Your task to perform on an android device: toggle show notifications on the lock screen Image 0: 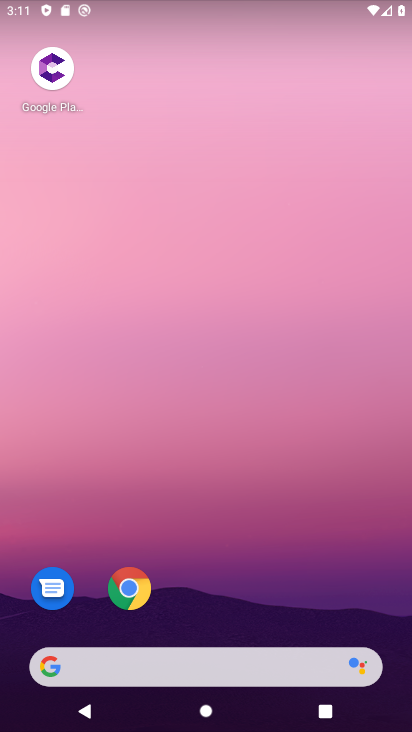
Step 0: drag from (222, 562) to (225, 84)
Your task to perform on an android device: toggle show notifications on the lock screen Image 1: 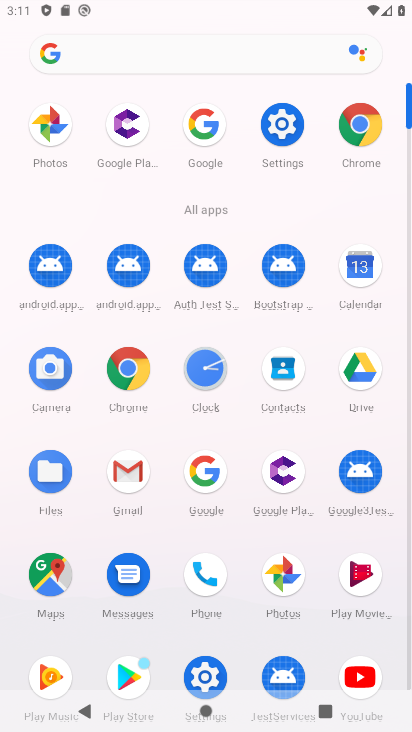
Step 1: click (281, 127)
Your task to perform on an android device: toggle show notifications on the lock screen Image 2: 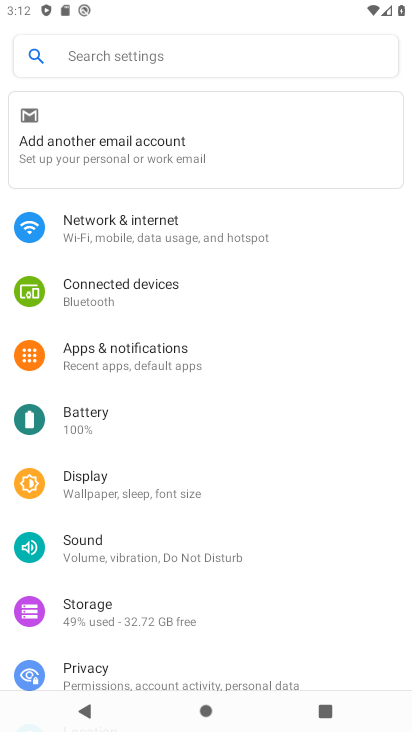
Step 2: click (131, 354)
Your task to perform on an android device: toggle show notifications on the lock screen Image 3: 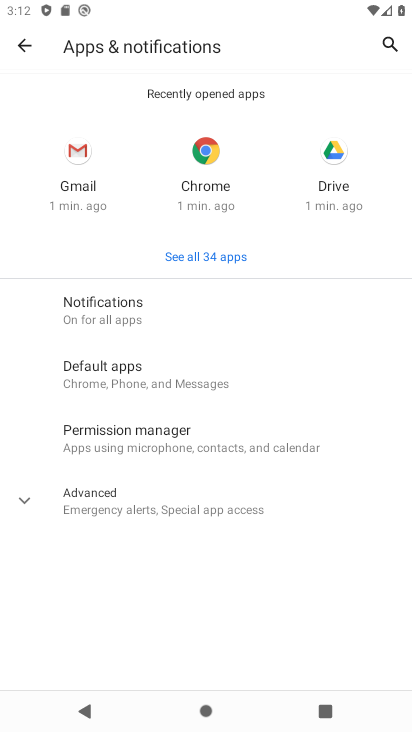
Step 3: click (78, 313)
Your task to perform on an android device: toggle show notifications on the lock screen Image 4: 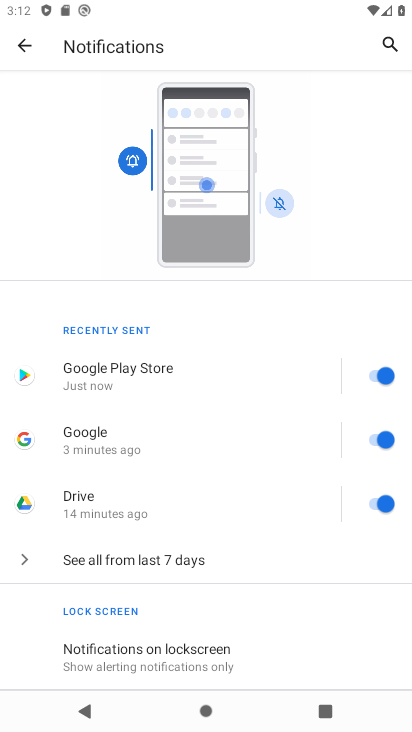
Step 4: drag from (153, 599) to (135, 276)
Your task to perform on an android device: toggle show notifications on the lock screen Image 5: 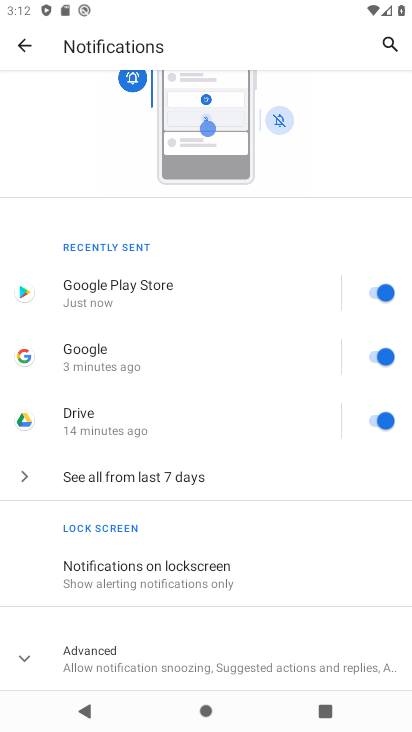
Step 5: click (117, 572)
Your task to perform on an android device: toggle show notifications on the lock screen Image 6: 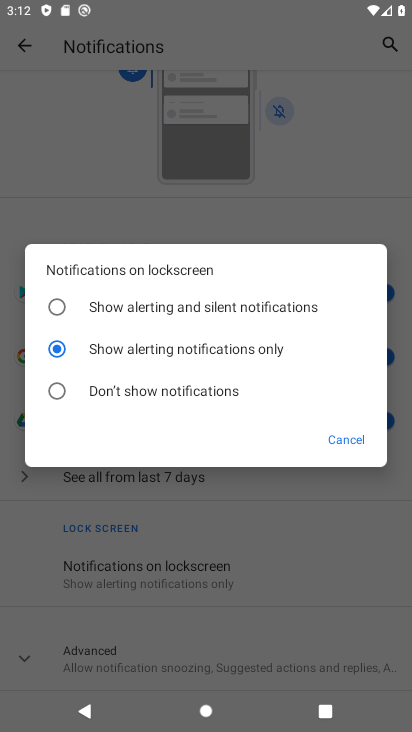
Step 6: click (111, 308)
Your task to perform on an android device: toggle show notifications on the lock screen Image 7: 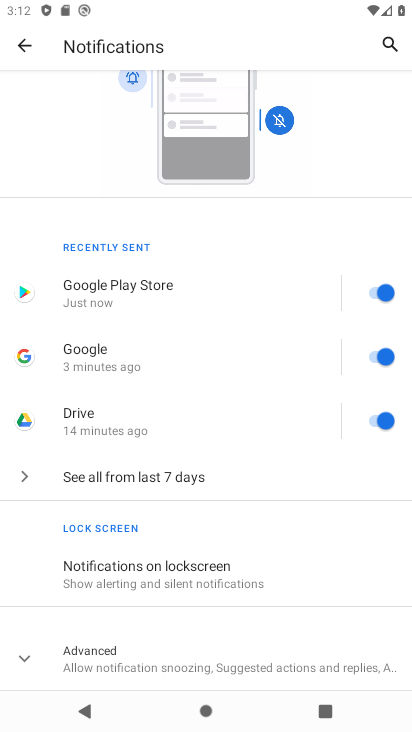
Step 7: task complete